Your task to perform on an android device: Empty the shopping cart on amazon. Image 0: 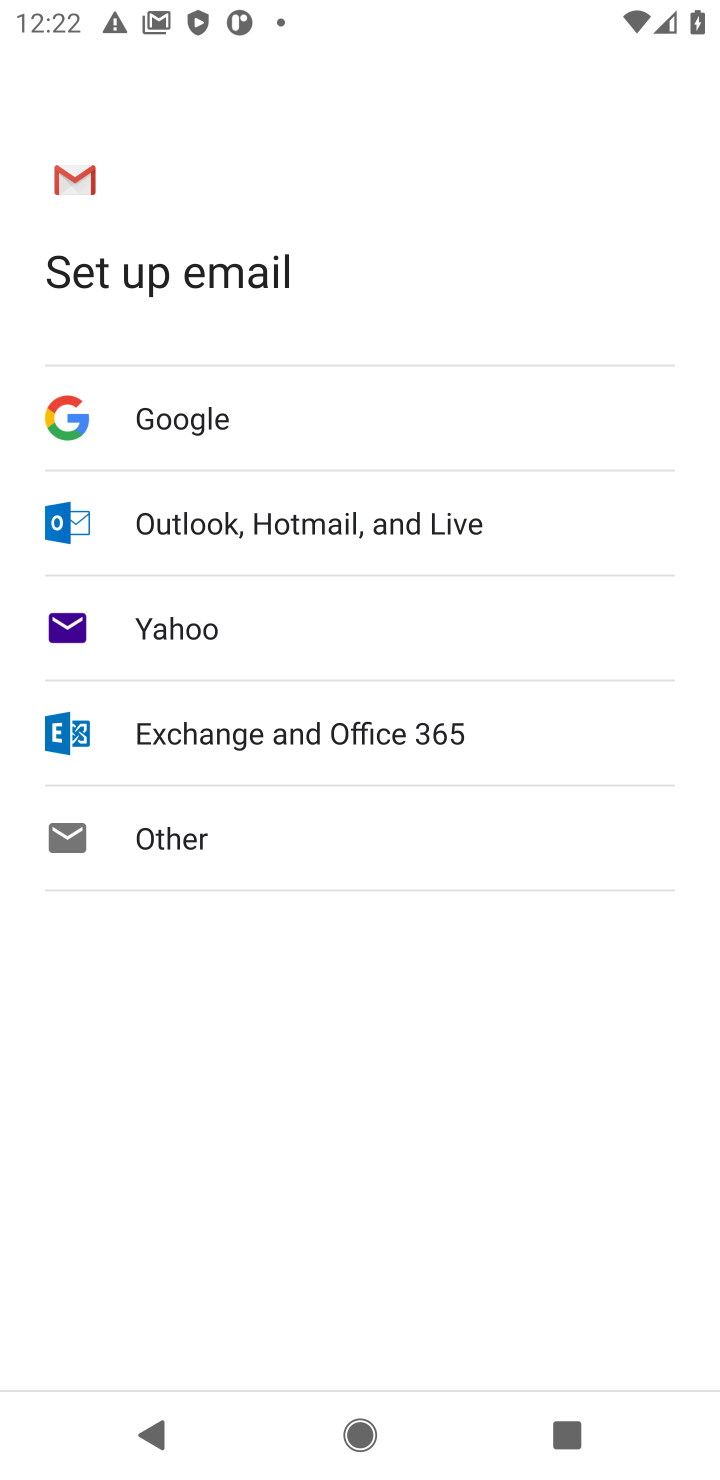
Step 0: press home button
Your task to perform on an android device: Empty the shopping cart on amazon. Image 1: 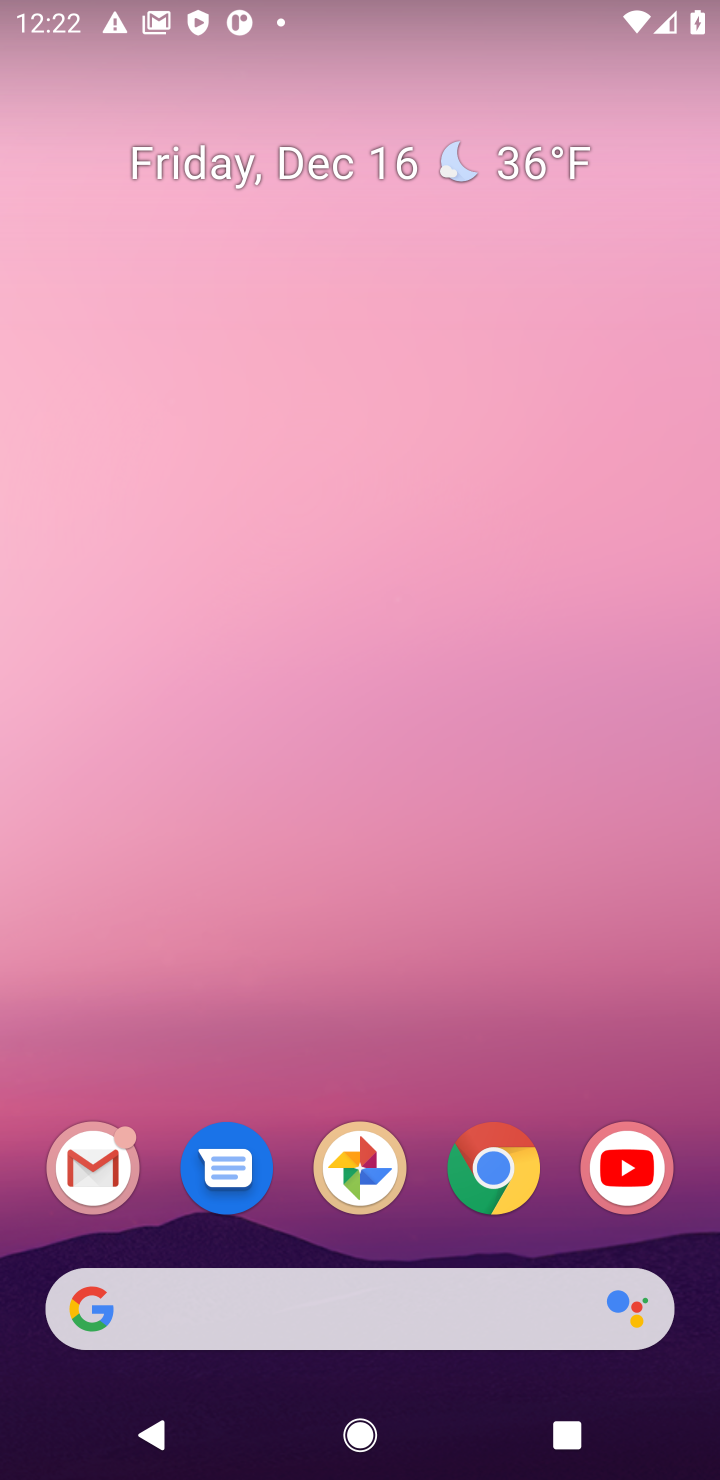
Step 1: click (505, 1148)
Your task to perform on an android device: Empty the shopping cart on amazon. Image 2: 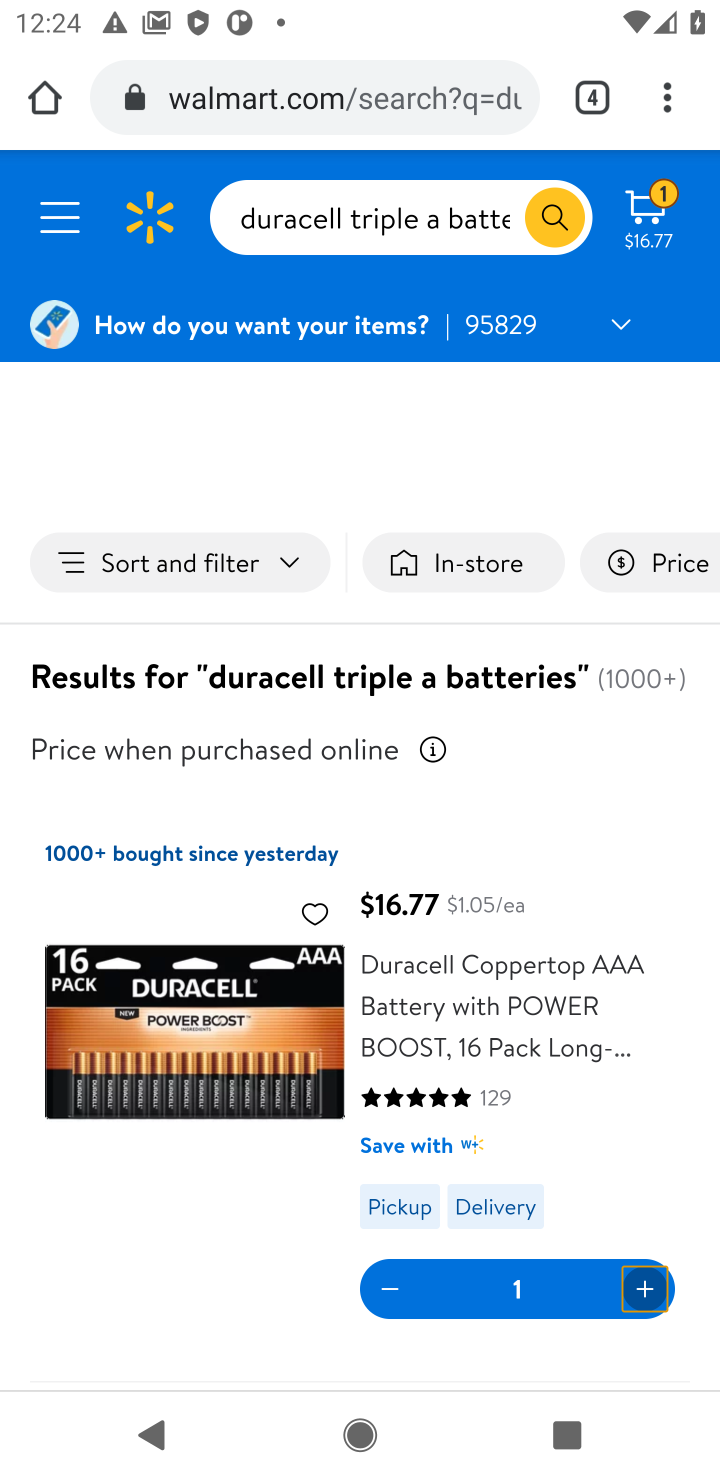
Step 2: click (284, 103)
Your task to perform on an android device: Empty the shopping cart on amazon. Image 3: 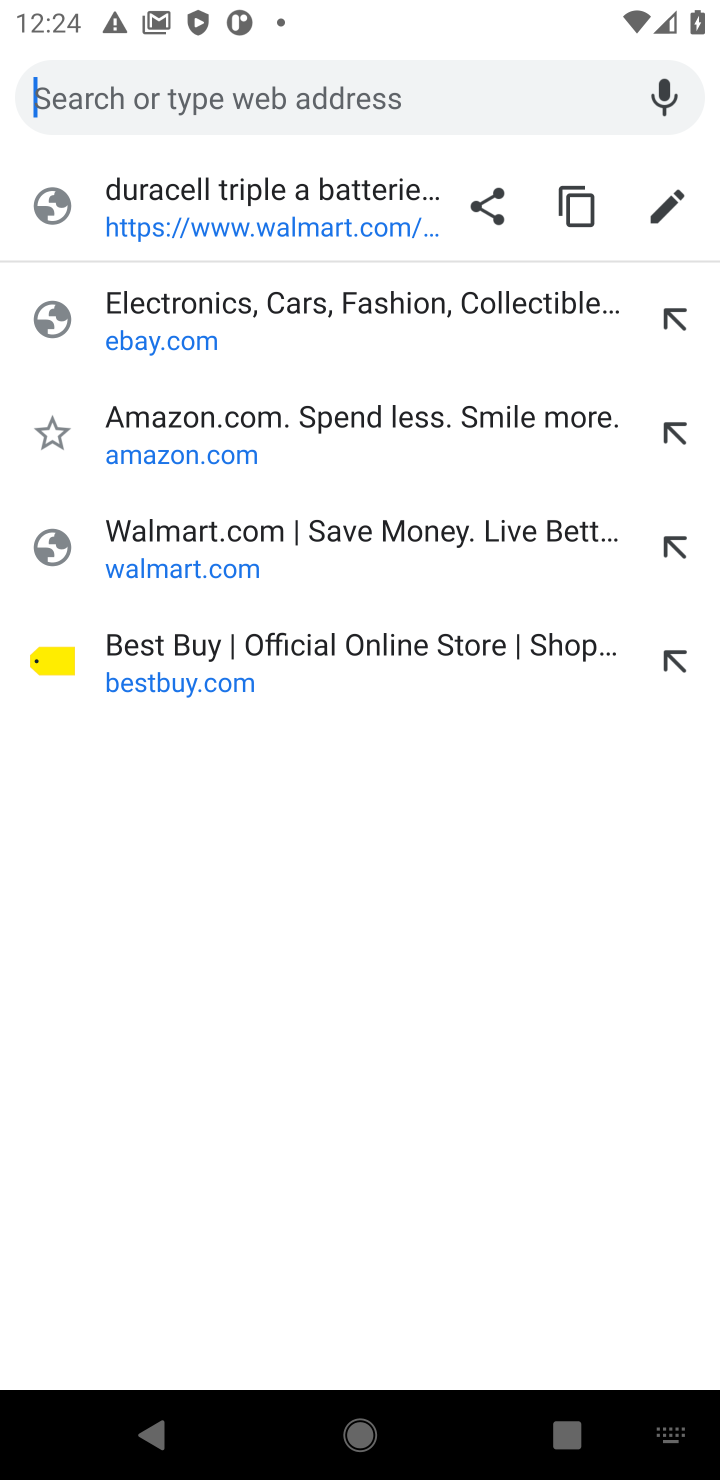
Step 3: click (291, 427)
Your task to perform on an android device: Empty the shopping cart on amazon. Image 4: 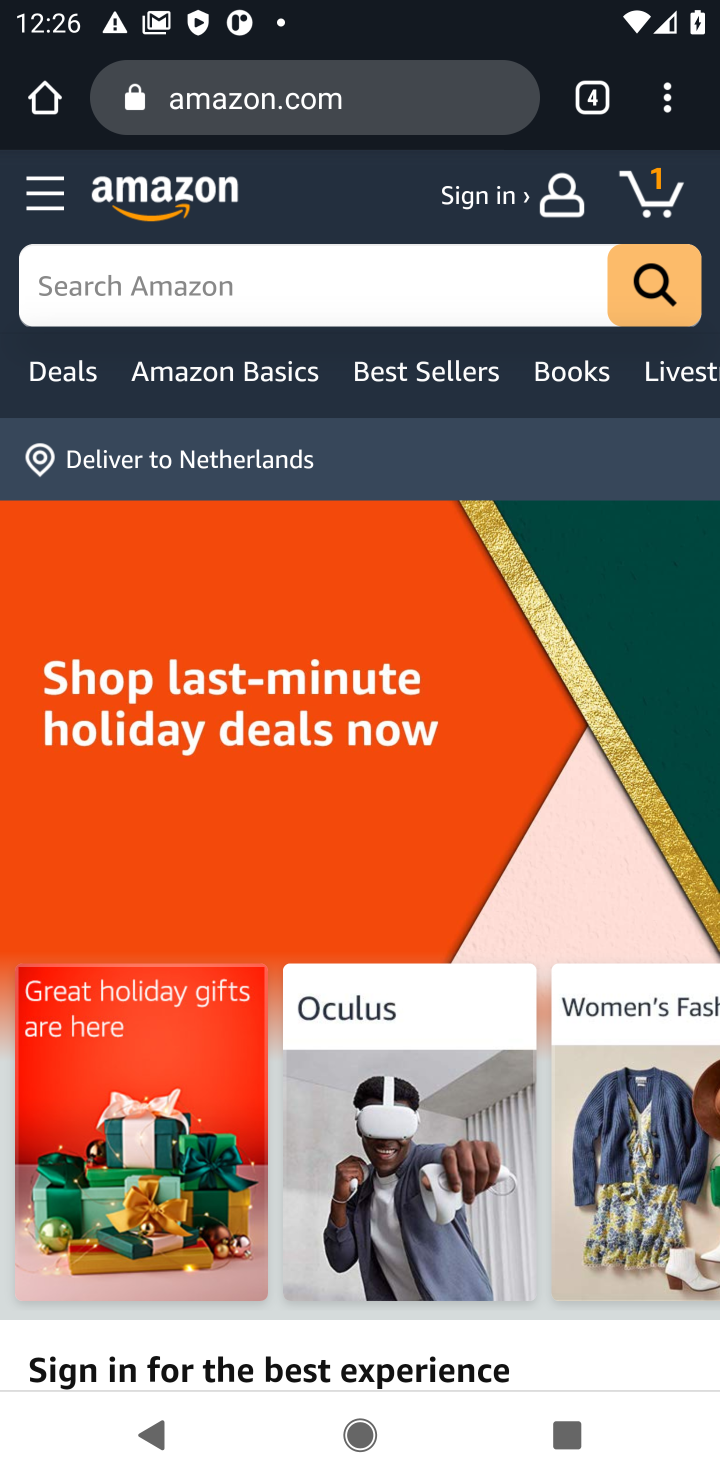
Step 4: click (646, 196)
Your task to perform on an android device: Empty the shopping cart on amazon. Image 5: 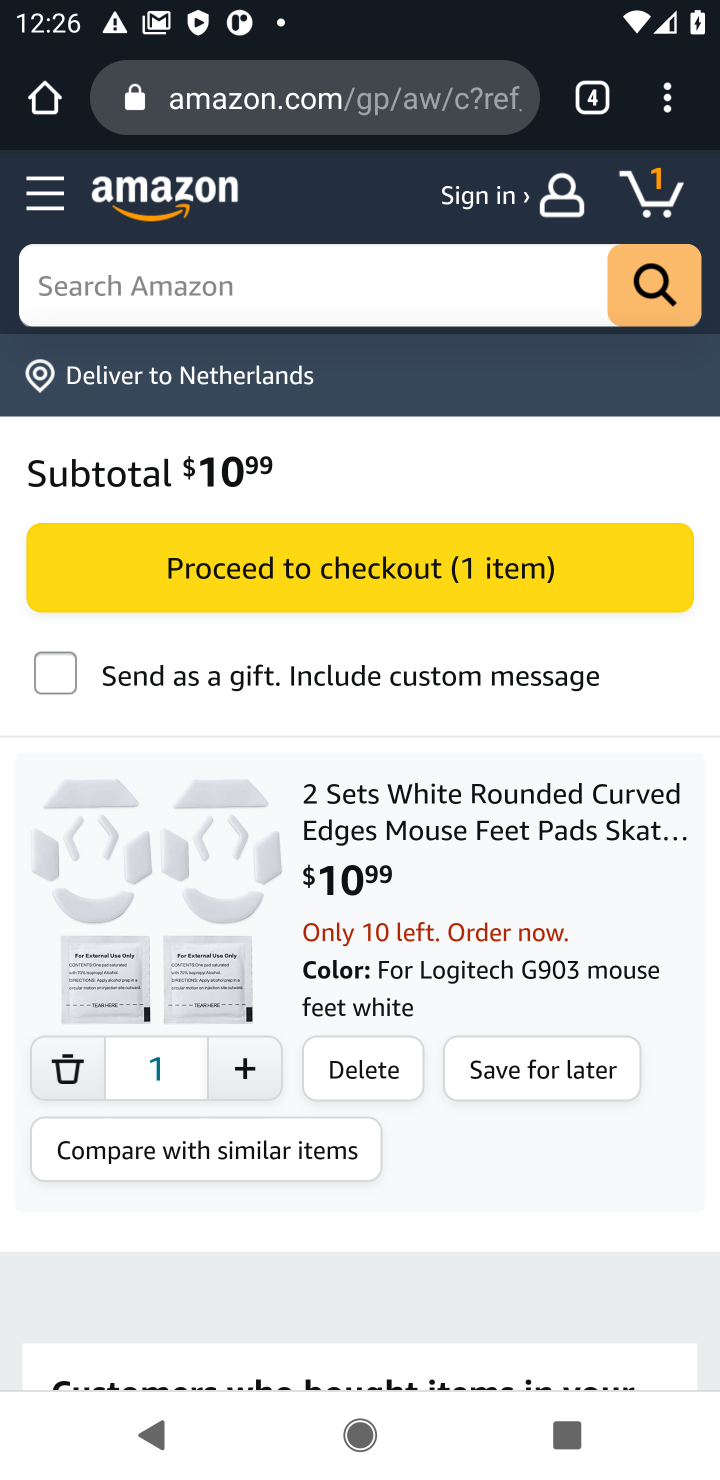
Step 5: click (66, 1064)
Your task to perform on an android device: Empty the shopping cart on amazon. Image 6: 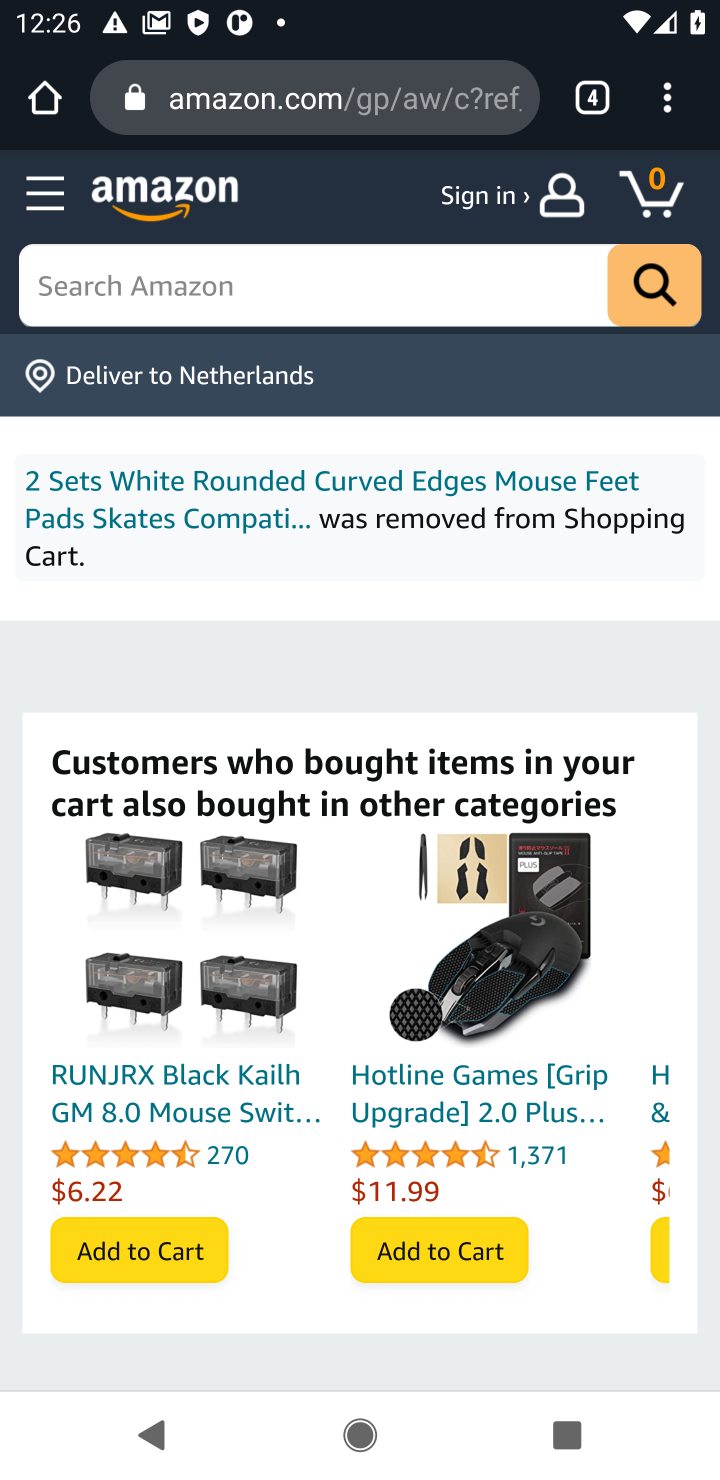
Step 6: task complete